Your task to perform on an android device: find photos in the google photos app Image 0: 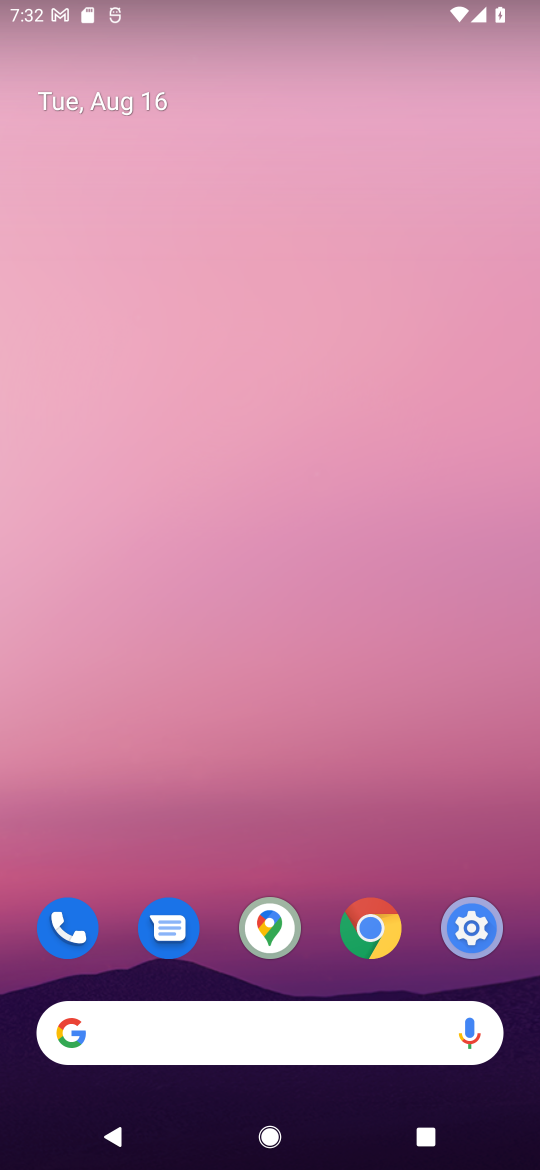
Step 0: drag from (272, 1007) to (254, 239)
Your task to perform on an android device: find photos in the google photos app Image 1: 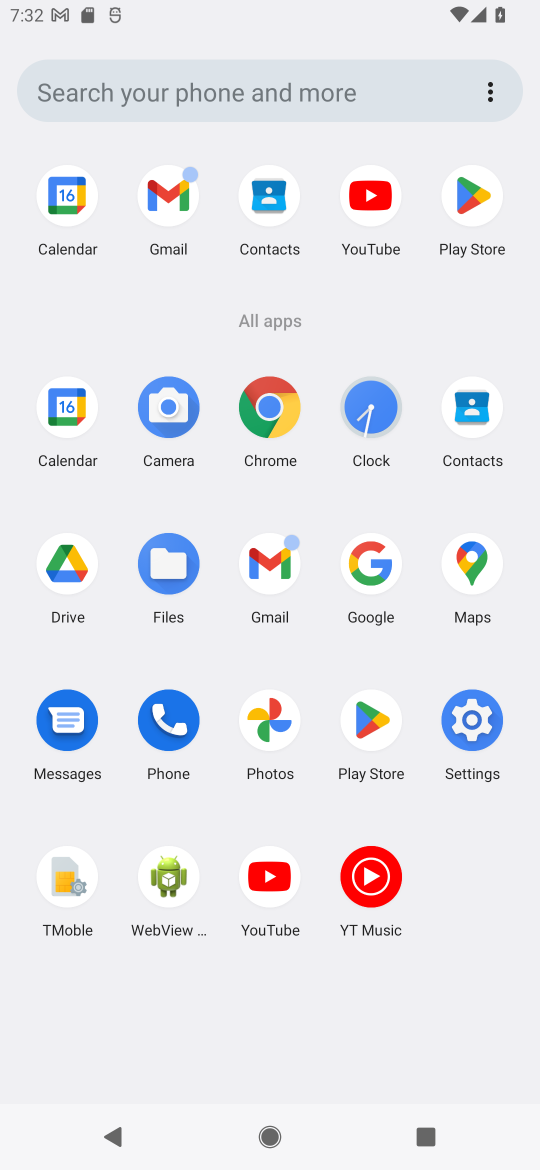
Step 1: click (265, 757)
Your task to perform on an android device: find photos in the google photos app Image 2: 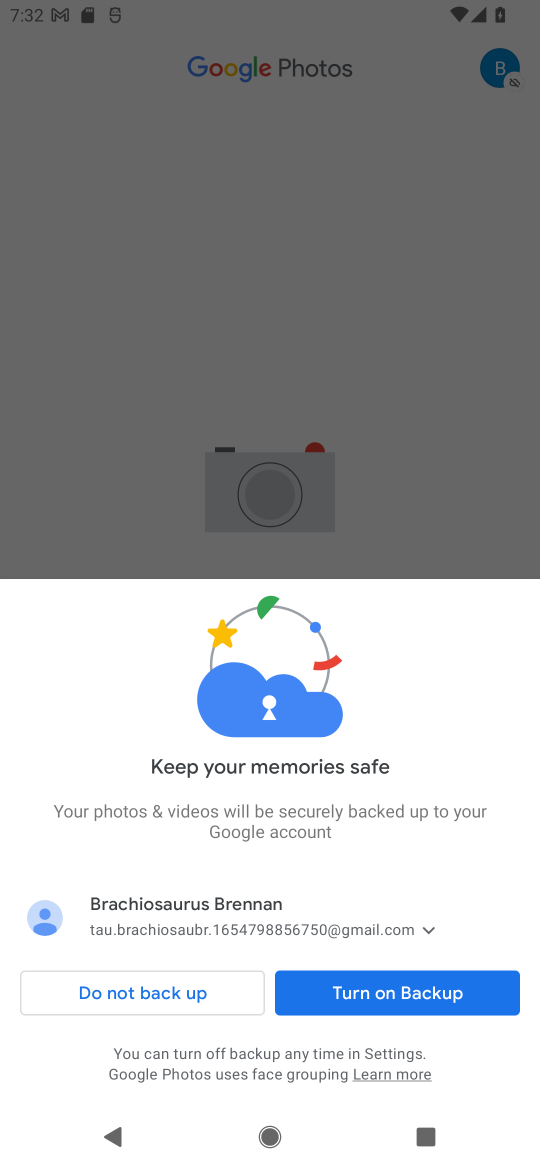
Step 2: click (414, 1000)
Your task to perform on an android device: find photos in the google photos app Image 3: 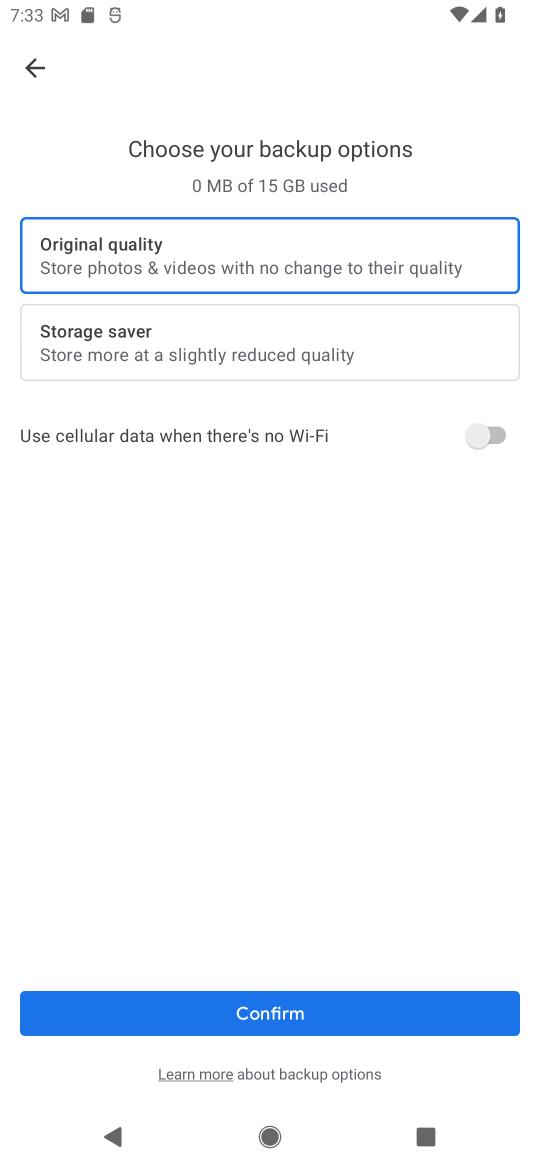
Step 3: drag from (414, 1000) to (357, 1000)
Your task to perform on an android device: find photos in the google photos app Image 4: 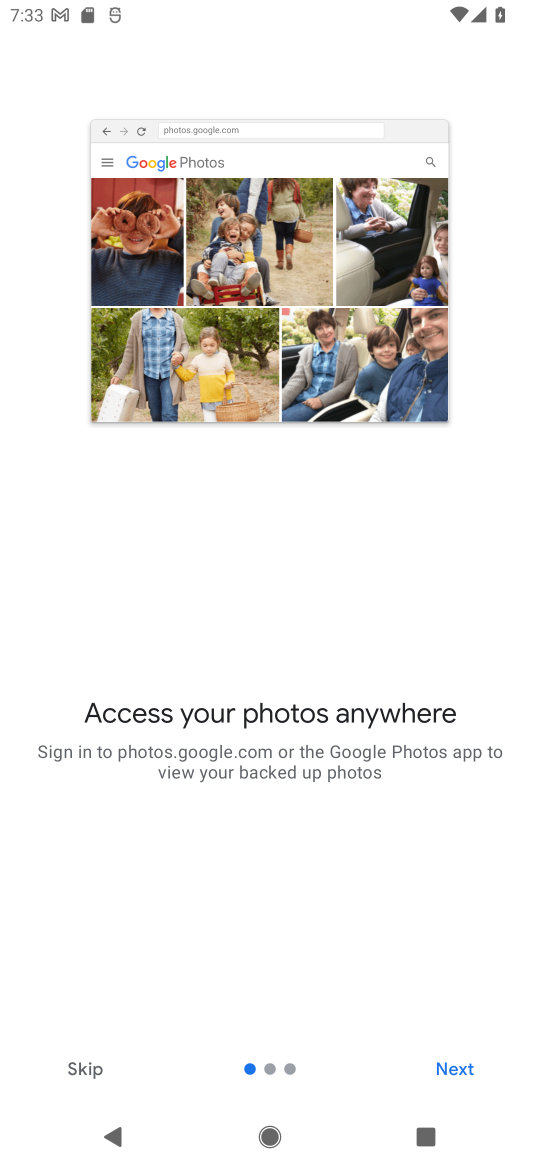
Step 4: click (76, 1070)
Your task to perform on an android device: find photos in the google photos app Image 5: 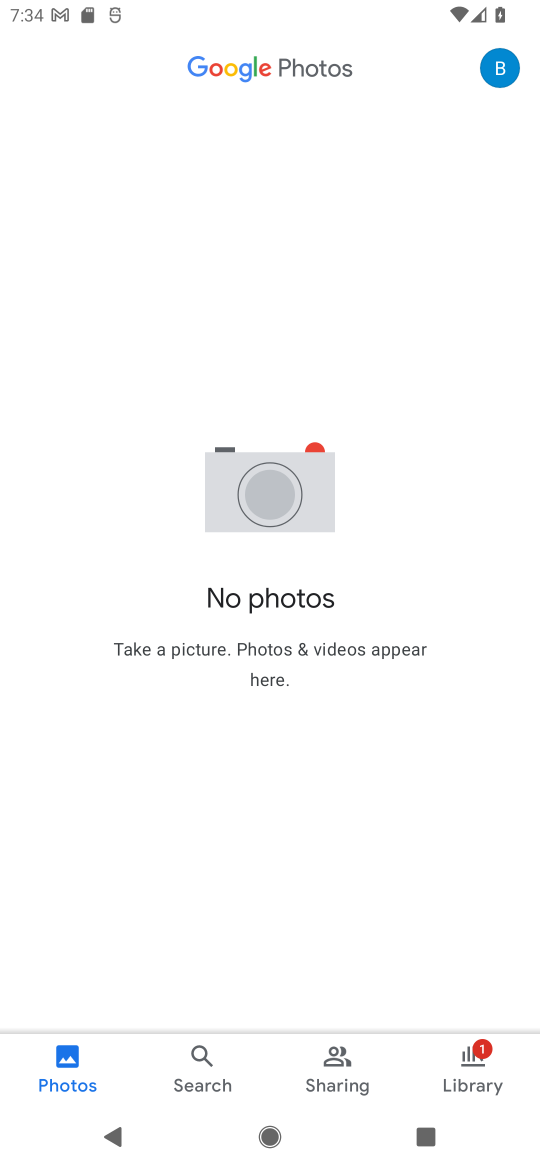
Step 5: task complete